Your task to perform on an android device: find snoozed emails in the gmail app Image 0: 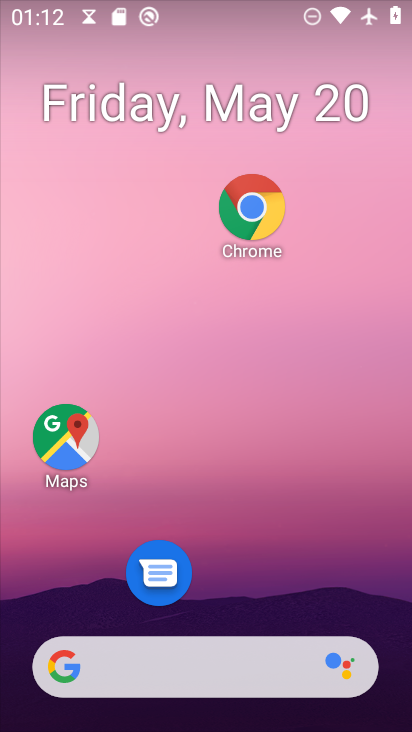
Step 0: drag from (261, 588) to (271, 63)
Your task to perform on an android device: find snoozed emails in the gmail app Image 1: 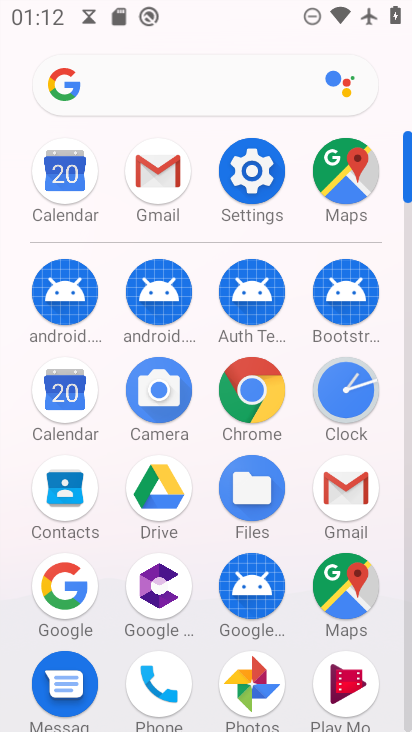
Step 1: click (336, 476)
Your task to perform on an android device: find snoozed emails in the gmail app Image 2: 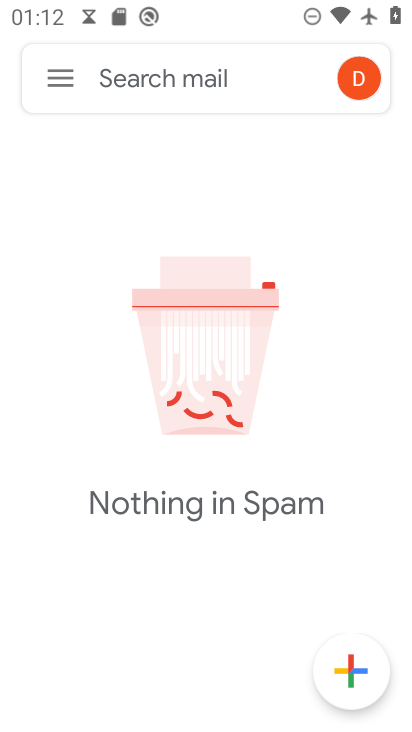
Step 2: click (59, 73)
Your task to perform on an android device: find snoozed emails in the gmail app Image 3: 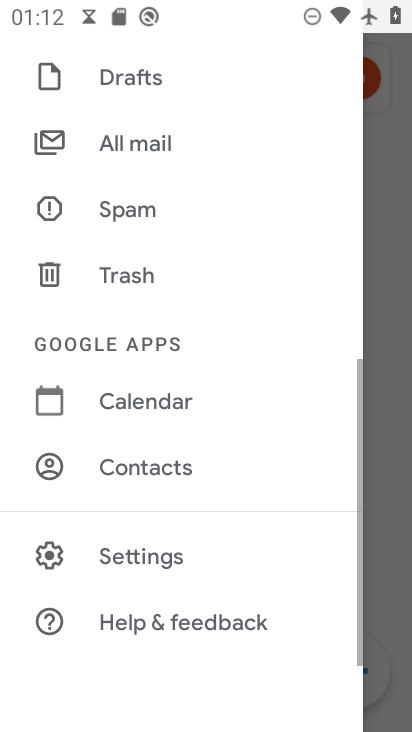
Step 3: drag from (187, 145) to (206, 502)
Your task to perform on an android device: find snoozed emails in the gmail app Image 4: 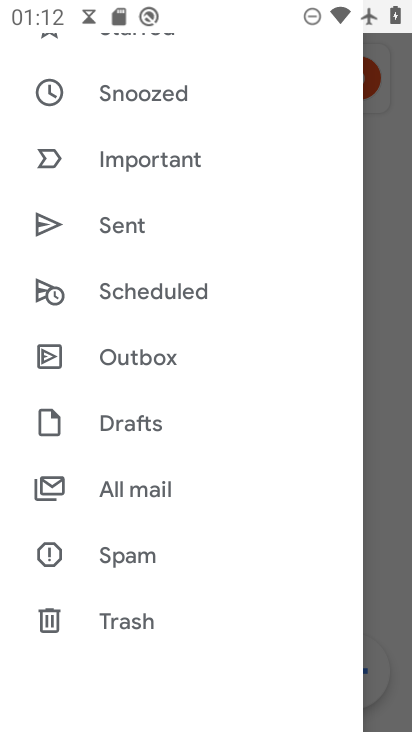
Step 4: click (131, 79)
Your task to perform on an android device: find snoozed emails in the gmail app Image 5: 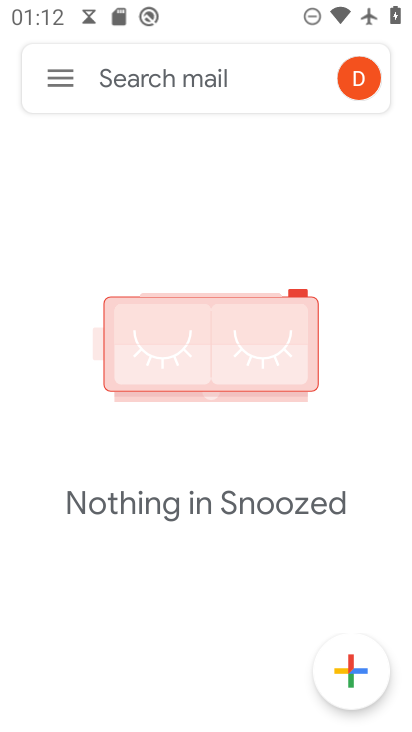
Step 5: task complete